Your task to perform on an android device: Look up the best selling books on Goodreads. Image 0: 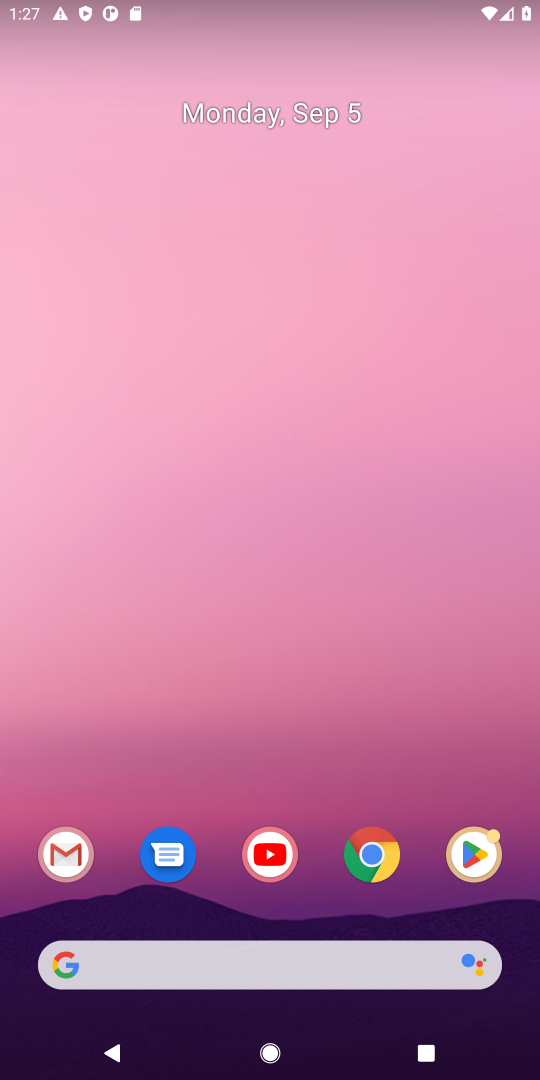
Step 0: click (336, 965)
Your task to perform on an android device: Look up the best selling books on Goodreads. Image 1: 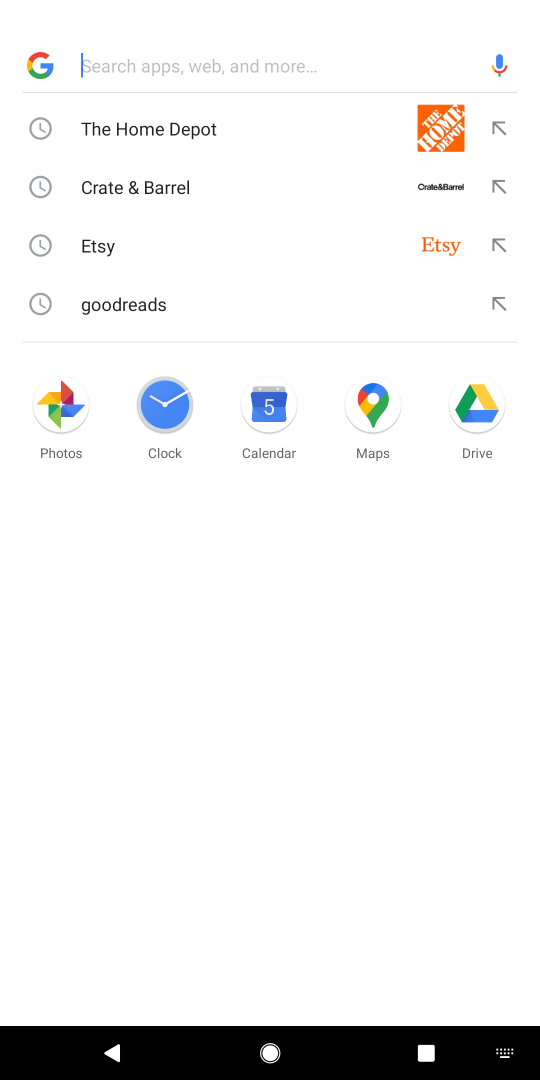
Step 1: type "goodreads"
Your task to perform on an android device: Look up the best selling books on Goodreads. Image 2: 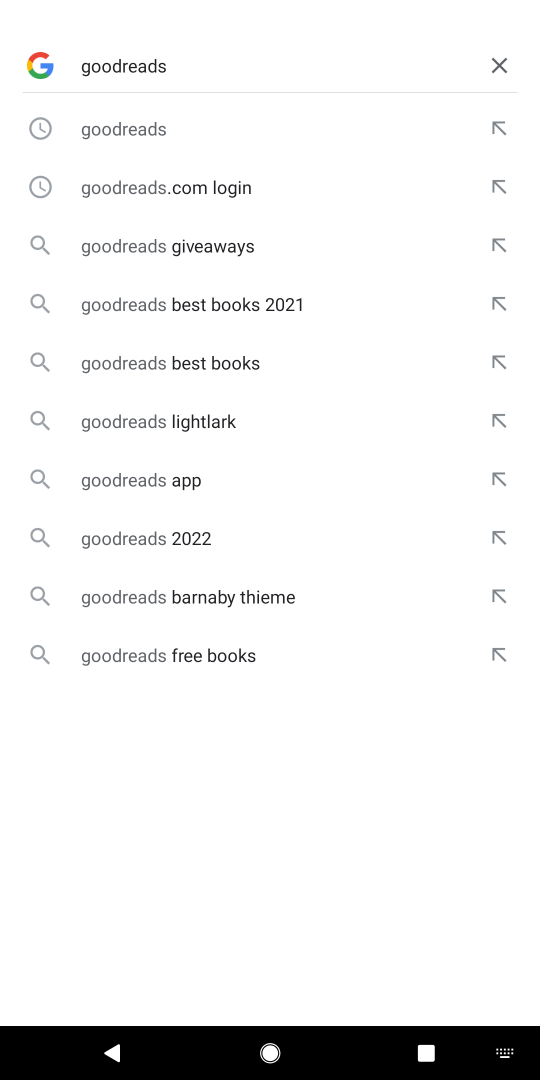
Step 2: press enter
Your task to perform on an android device: Look up the best selling books on Goodreads. Image 3: 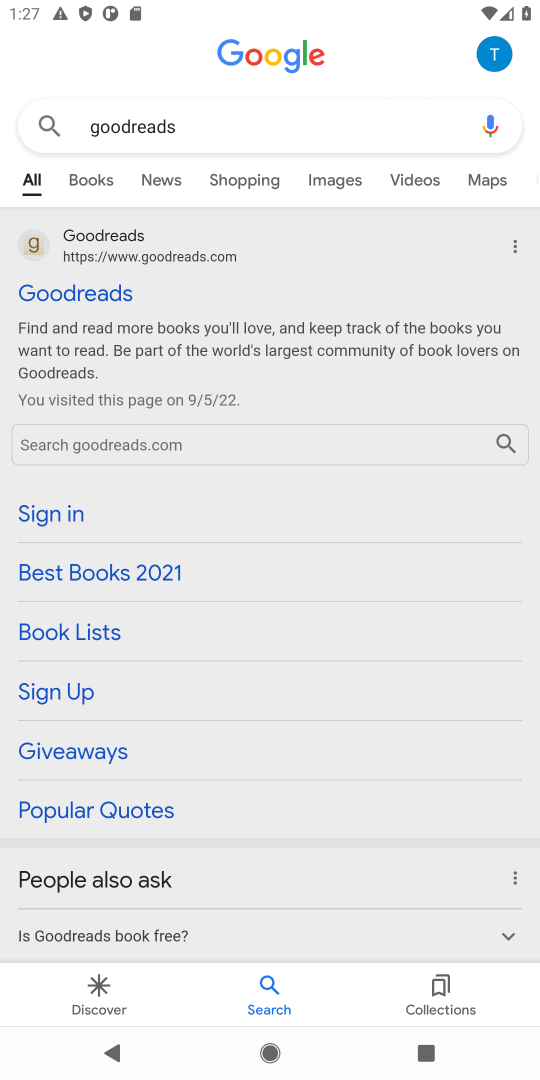
Step 3: click (100, 287)
Your task to perform on an android device: Look up the best selling books on Goodreads. Image 4: 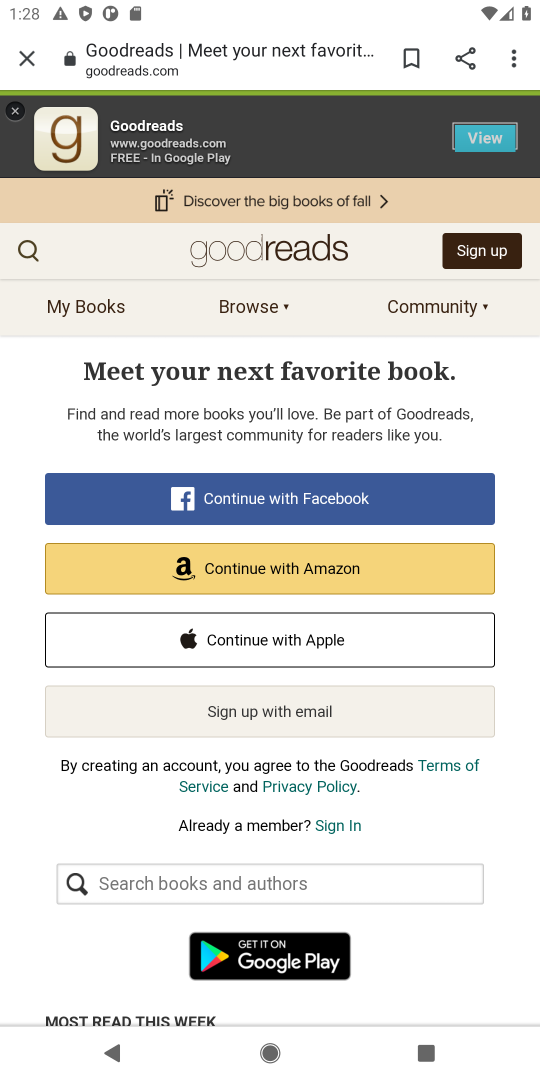
Step 4: click (58, 255)
Your task to perform on an android device: Look up the best selling books on Goodreads. Image 5: 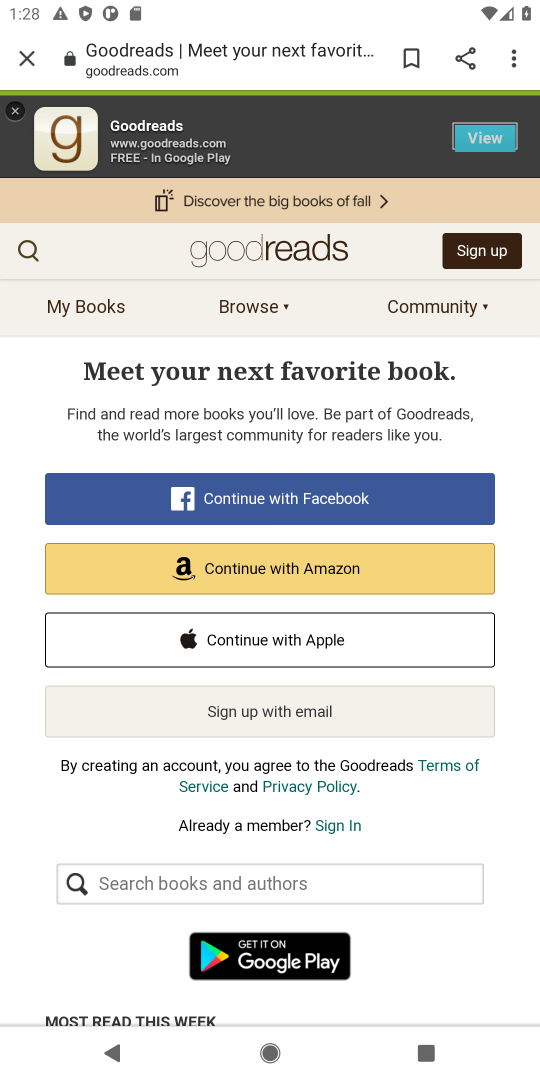
Step 5: click (31, 259)
Your task to perform on an android device: Look up the best selling books on Goodreads. Image 6: 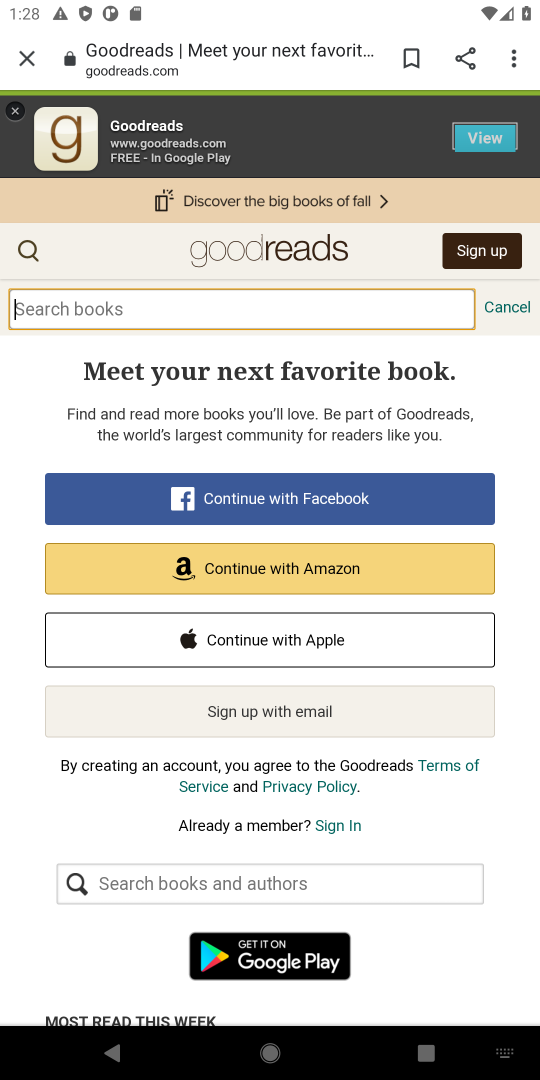
Step 6: type "best selling books"
Your task to perform on an android device: Look up the best selling books on Goodreads. Image 7: 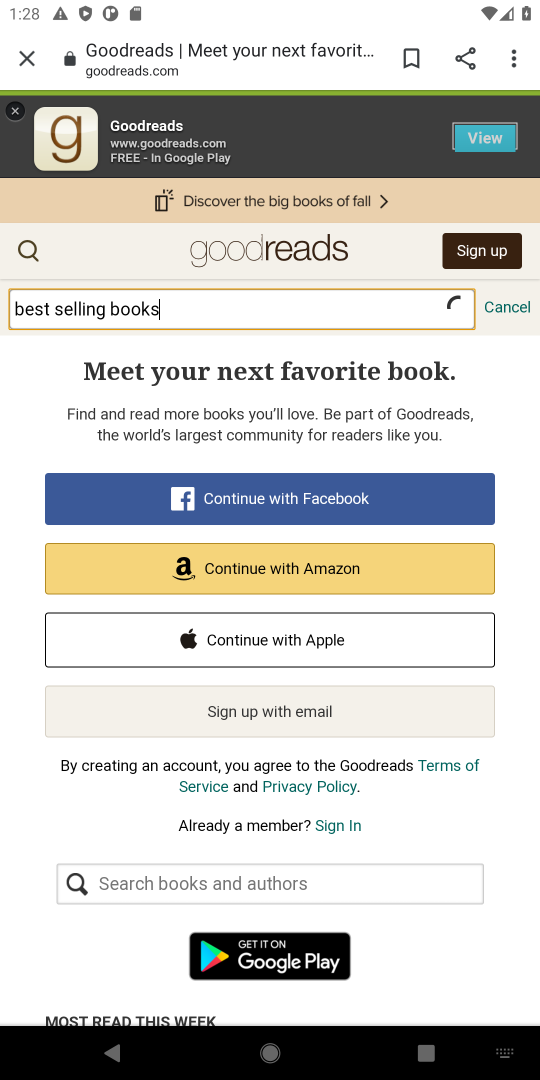
Step 7: press enter
Your task to perform on an android device: Look up the best selling books on Goodreads. Image 8: 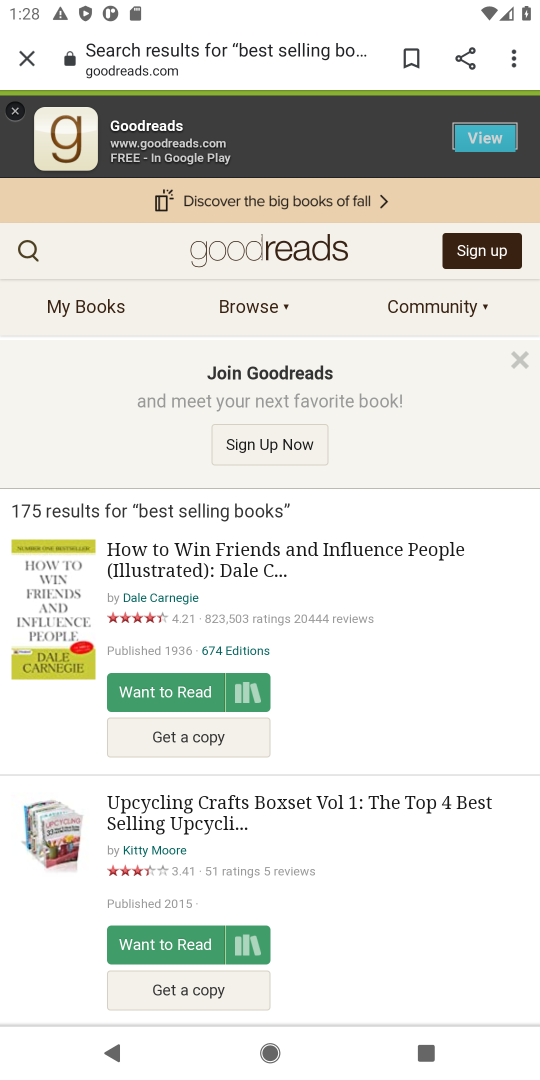
Step 8: task complete